Your task to perform on an android device: Open ESPN.com Image 0: 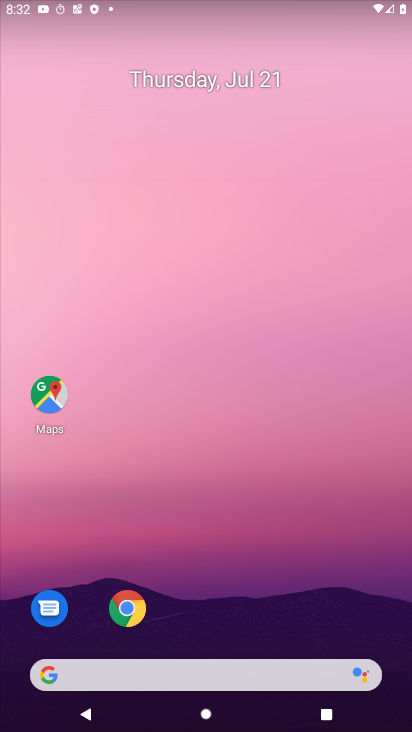
Step 0: click (134, 623)
Your task to perform on an android device: Open ESPN.com Image 1: 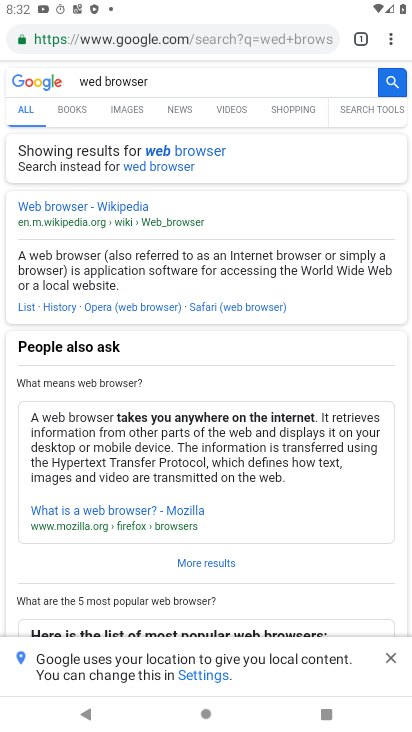
Step 1: click (169, 39)
Your task to perform on an android device: Open ESPN.com Image 2: 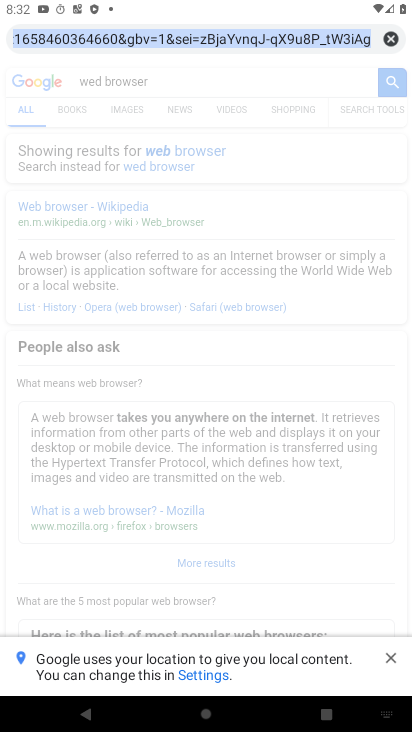
Step 2: type "ESPN.com"
Your task to perform on an android device: Open ESPN.com Image 3: 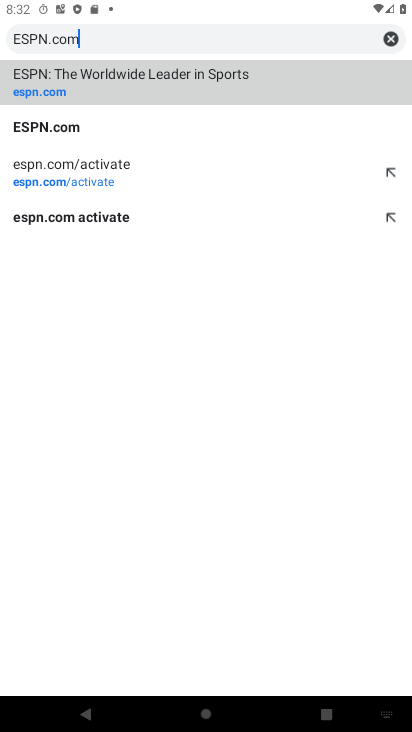
Step 3: click (304, 80)
Your task to perform on an android device: Open ESPN.com Image 4: 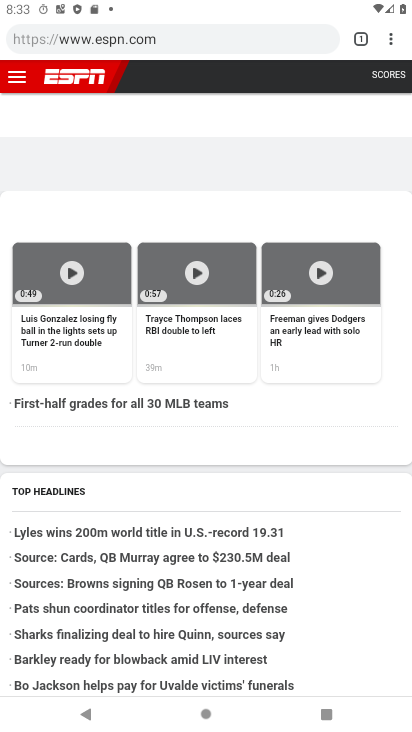
Step 4: task complete